Your task to perform on an android device: turn on improve location accuracy Image 0: 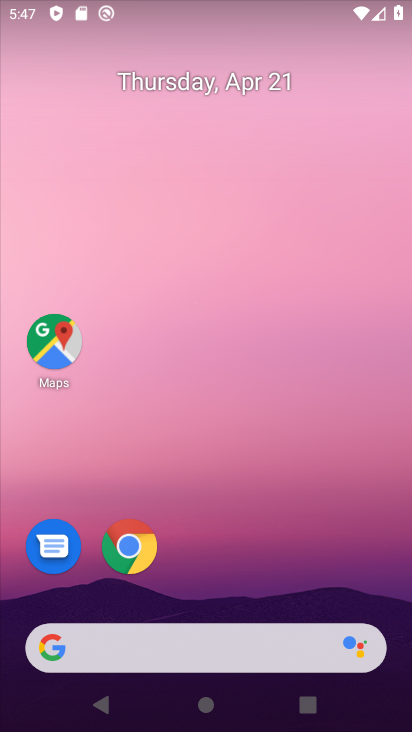
Step 0: drag from (268, 608) to (254, 165)
Your task to perform on an android device: turn on improve location accuracy Image 1: 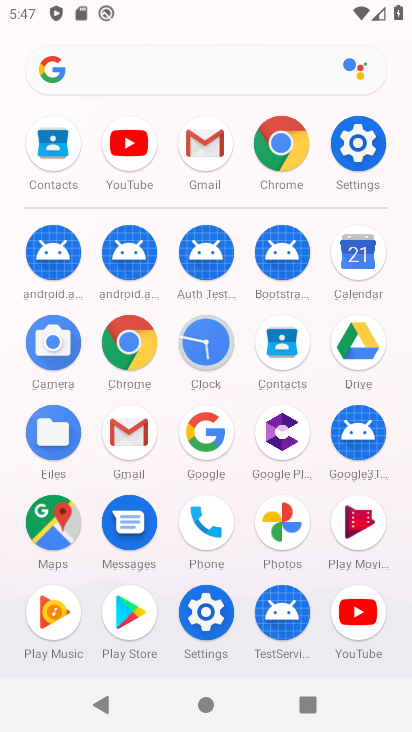
Step 1: click (362, 152)
Your task to perform on an android device: turn on improve location accuracy Image 2: 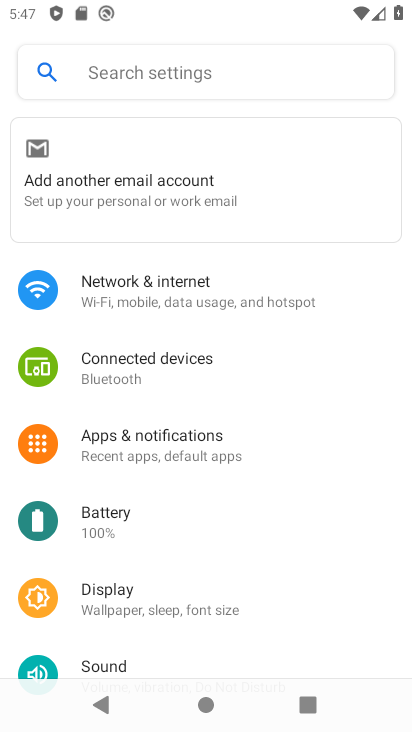
Step 2: drag from (266, 591) to (260, 233)
Your task to perform on an android device: turn on improve location accuracy Image 3: 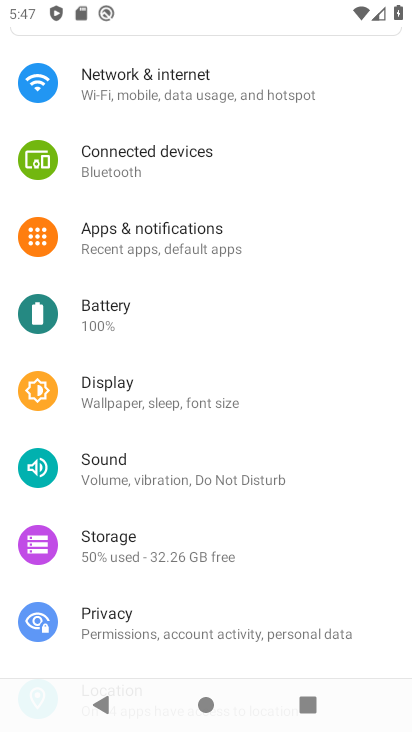
Step 3: drag from (272, 485) to (275, 192)
Your task to perform on an android device: turn on improve location accuracy Image 4: 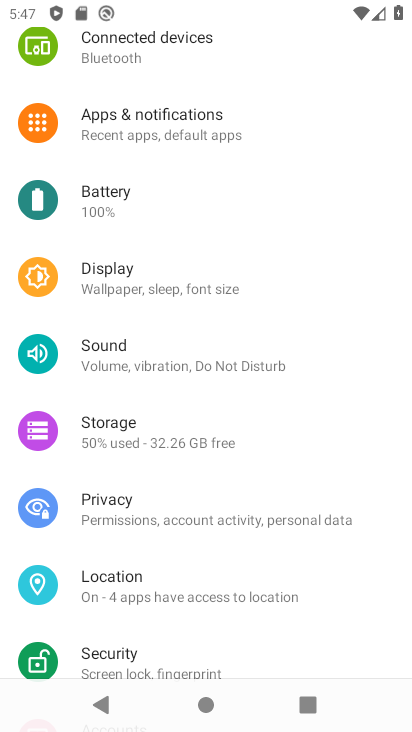
Step 4: click (163, 574)
Your task to perform on an android device: turn on improve location accuracy Image 5: 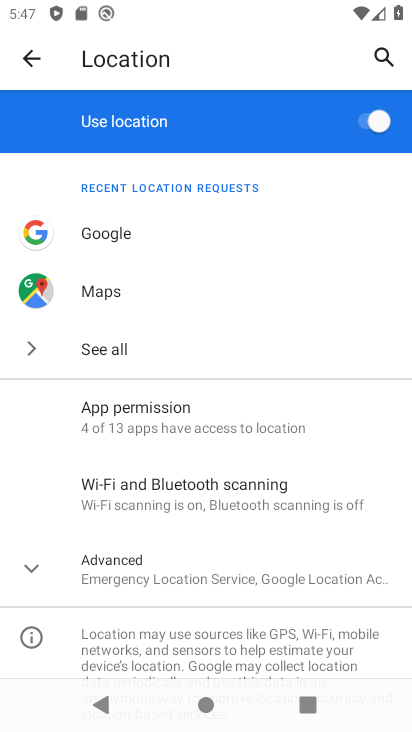
Step 5: click (240, 581)
Your task to perform on an android device: turn on improve location accuracy Image 6: 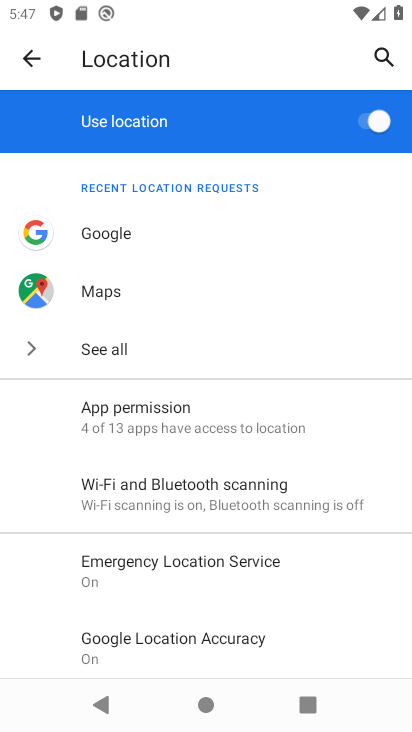
Step 6: task complete